Your task to perform on an android device: toggle notification dots Image 0: 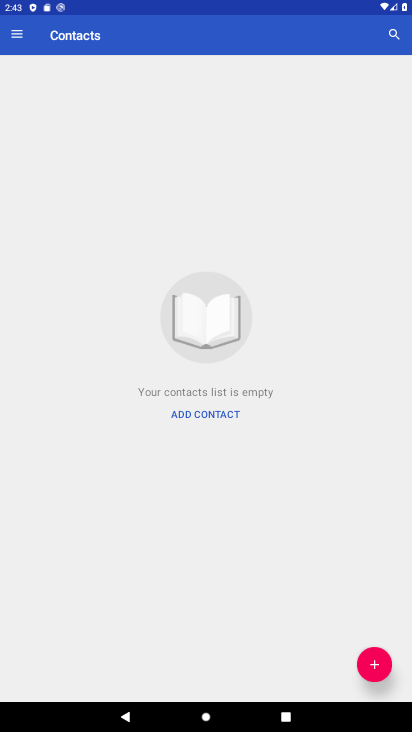
Step 0: press home button
Your task to perform on an android device: toggle notification dots Image 1: 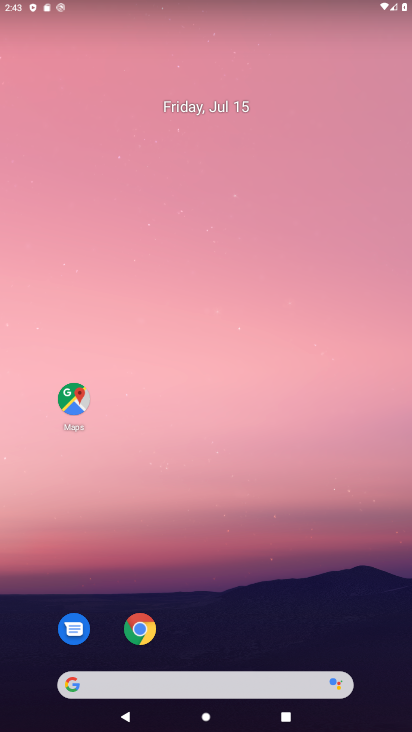
Step 1: drag from (221, 645) to (187, 22)
Your task to perform on an android device: toggle notification dots Image 2: 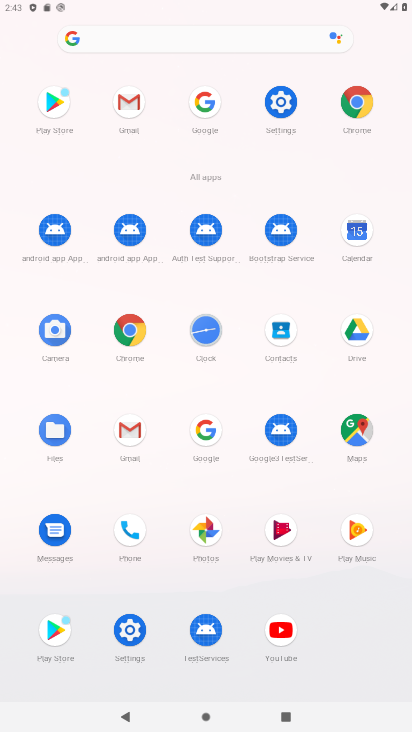
Step 2: click (131, 614)
Your task to perform on an android device: toggle notification dots Image 3: 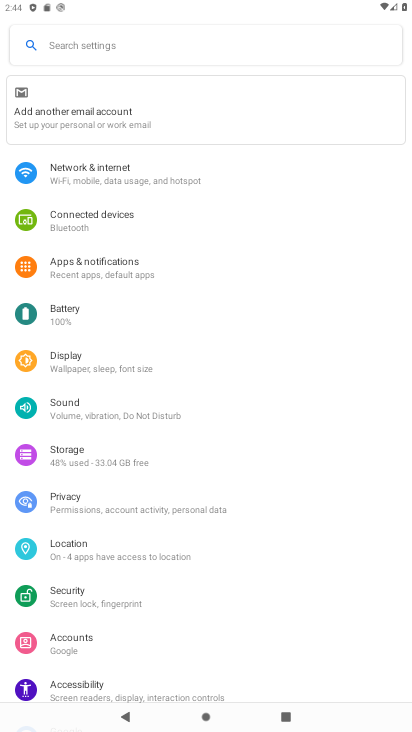
Step 3: click (78, 270)
Your task to perform on an android device: toggle notification dots Image 4: 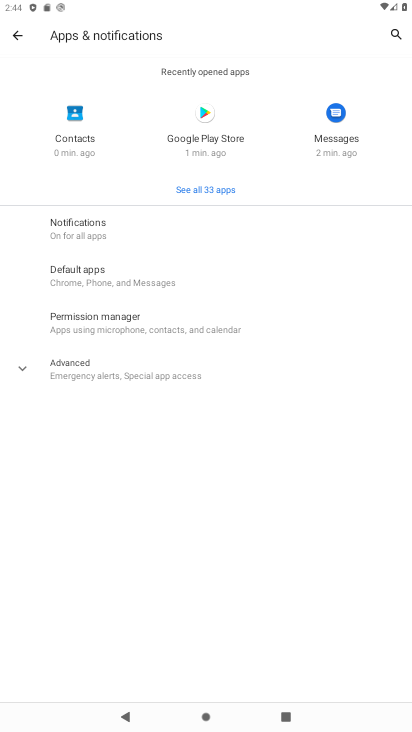
Step 4: click (77, 358)
Your task to perform on an android device: toggle notification dots Image 5: 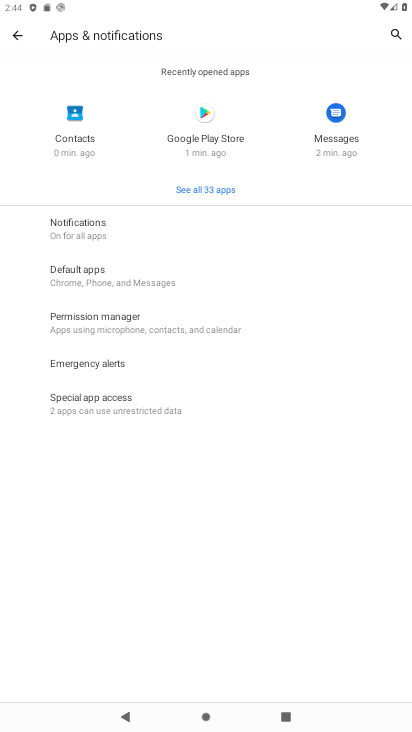
Step 5: click (99, 233)
Your task to perform on an android device: toggle notification dots Image 6: 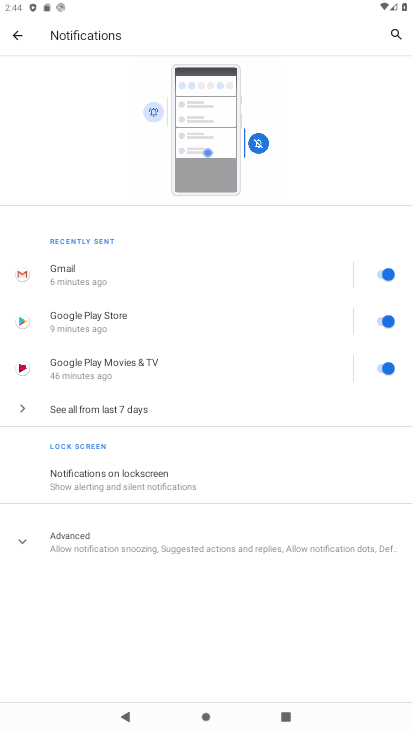
Step 6: click (122, 554)
Your task to perform on an android device: toggle notification dots Image 7: 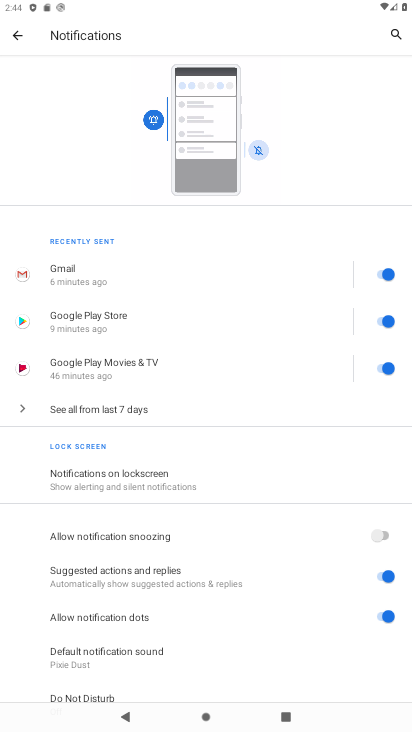
Step 7: click (381, 620)
Your task to perform on an android device: toggle notification dots Image 8: 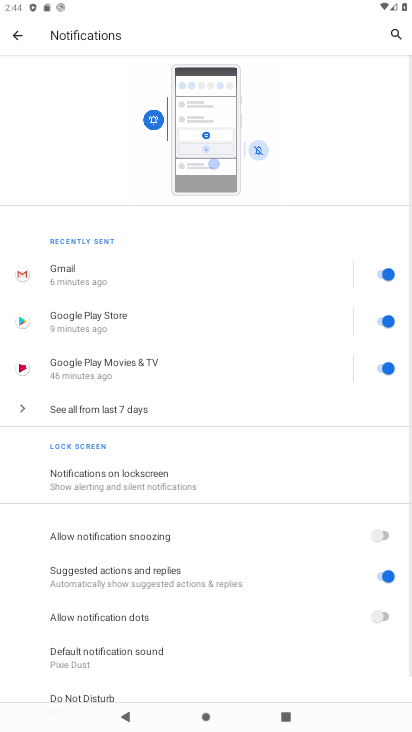
Step 8: task complete